Your task to perform on an android device: Show me popular games on the Play Store Image 0: 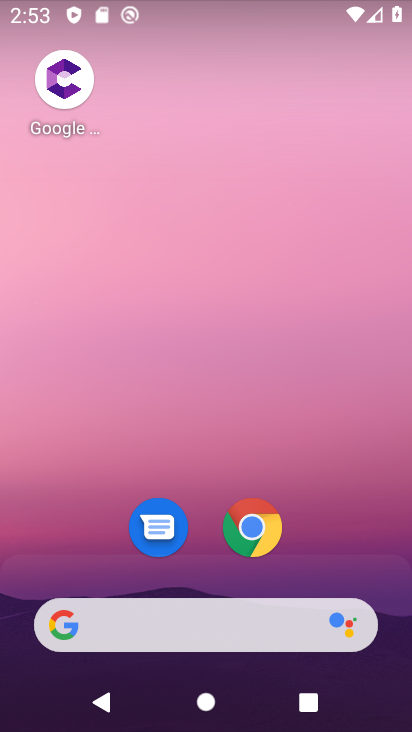
Step 0: drag from (75, 591) to (170, 127)
Your task to perform on an android device: Show me popular games on the Play Store Image 1: 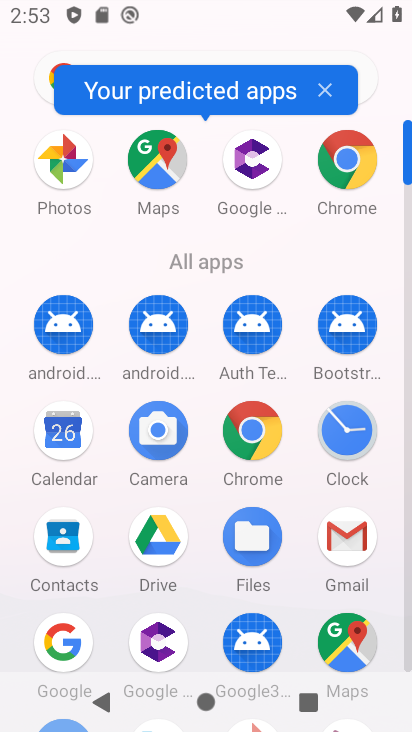
Step 1: drag from (160, 536) to (230, 292)
Your task to perform on an android device: Show me popular games on the Play Store Image 2: 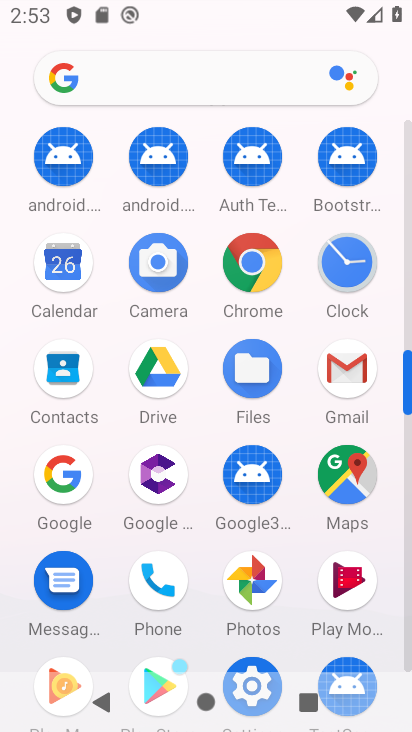
Step 2: drag from (166, 650) to (244, 399)
Your task to perform on an android device: Show me popular games on the Play Store Image 3: 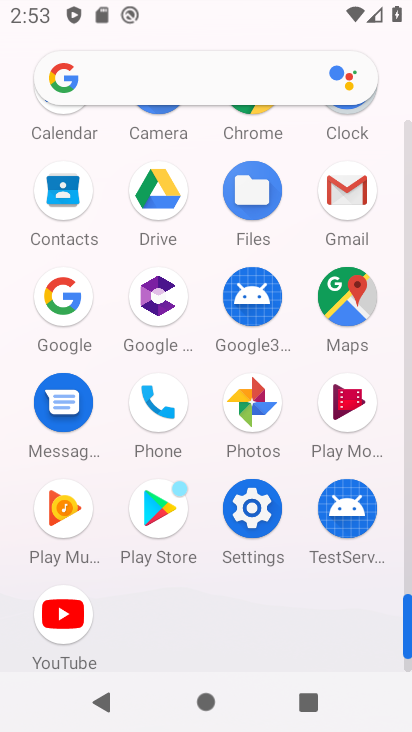
Step 3: click (164, 498)
Your task to perform on an android device: Show me popular games on the Play Store Image 4: 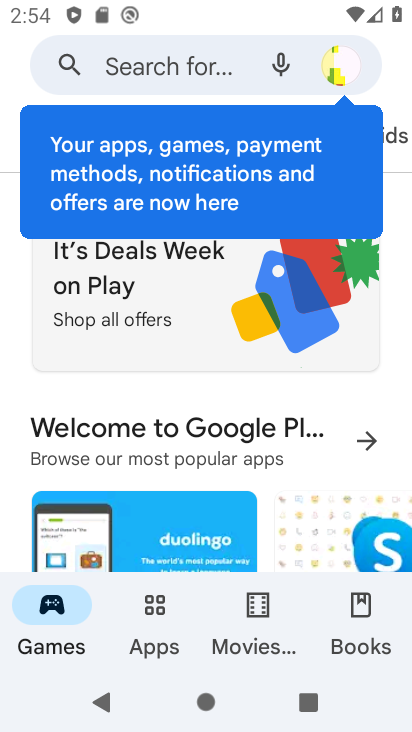
Step 4: drag from (261, 552) to (387, 63)
Your task to perform on an android device: Show me popular games on the Play Store Image 5: 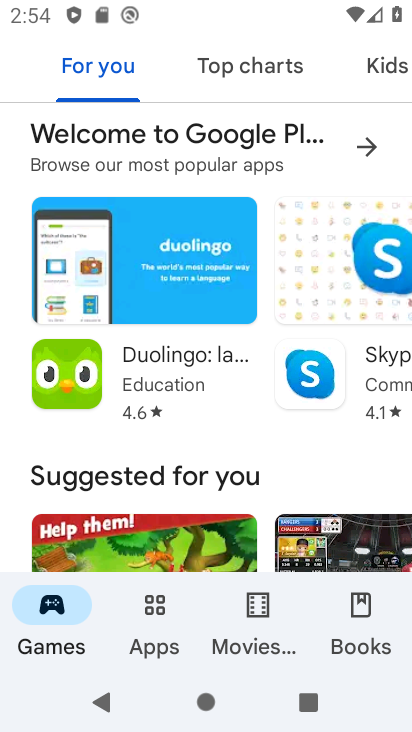
Step 5: drag from (198, 535) to (333, 147)
Your task to perform on an android device: Show me popular games on the Play Store Image 6: 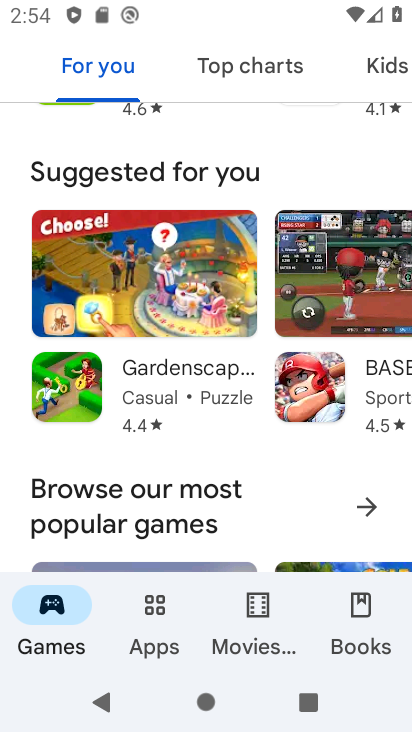
Step 6: drag from (204, 439) to (277, 218)
Your task to perform on an android device: Show me popular games on the Play Store Image 7: 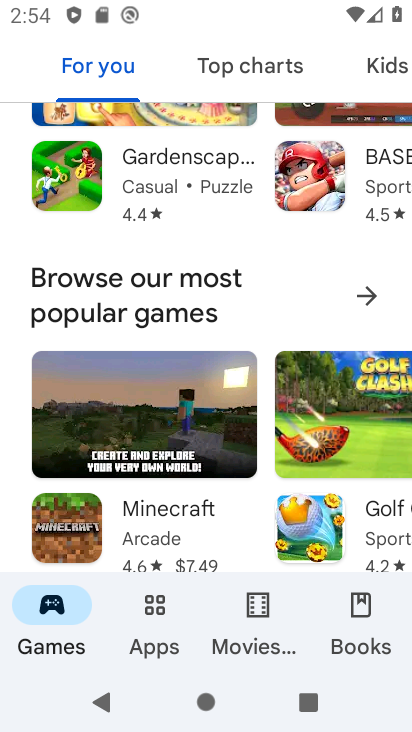
Step 7: click (364, 291)
Your task to perform on an android device: Show me popular games on the Play Store Image 8: 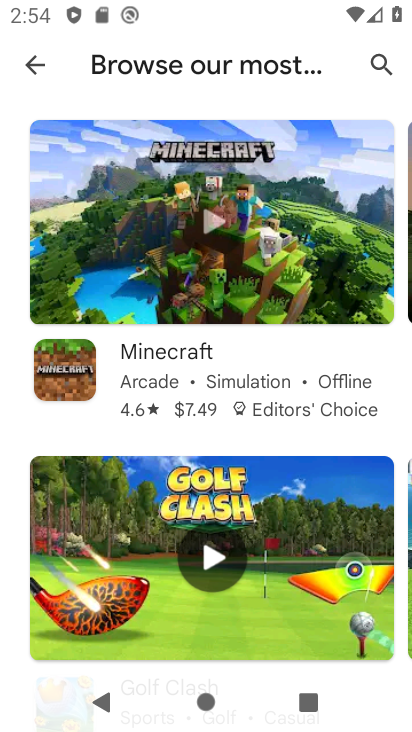
Step 8: task complete